Your task to perform on an android device: Open the map Image 0: 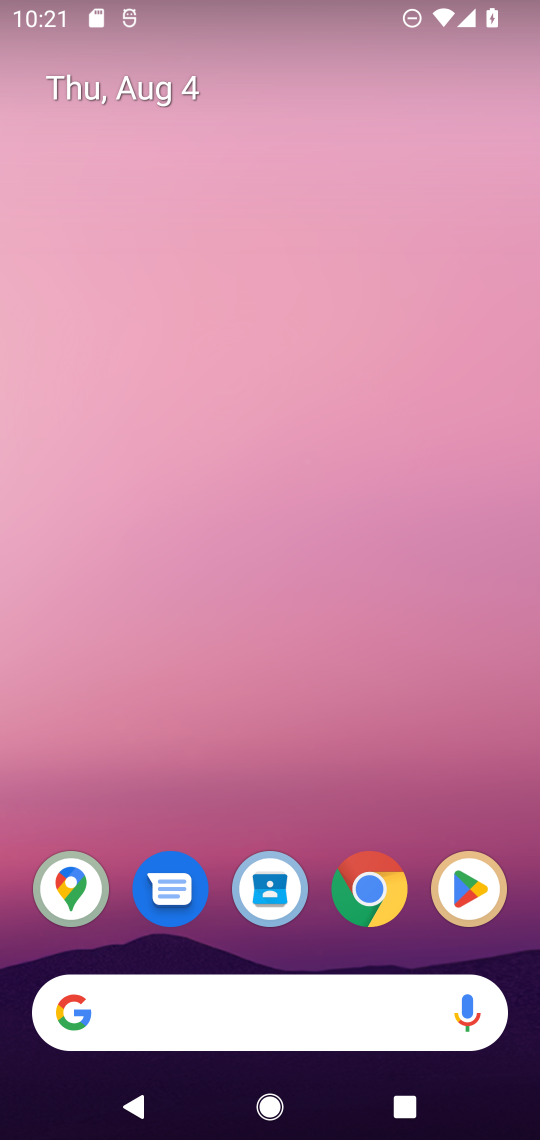
Step 0: press home button
Your task to perform on an android device: Open the map Image 1: 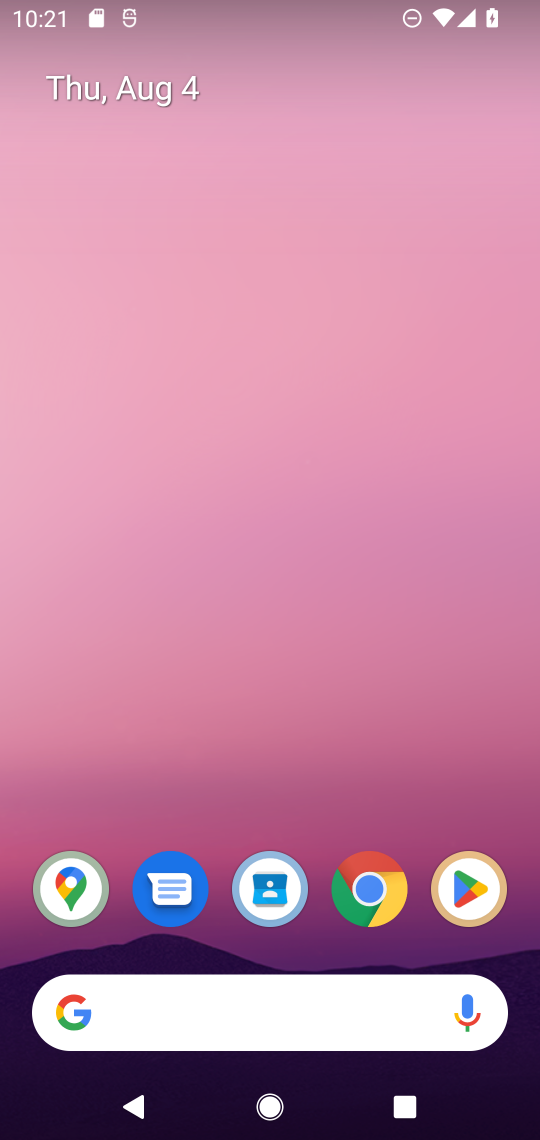
Step 1: drag from (400, 804) to (433, 279)
Your task to perform on an android device: Open the map Image 2: 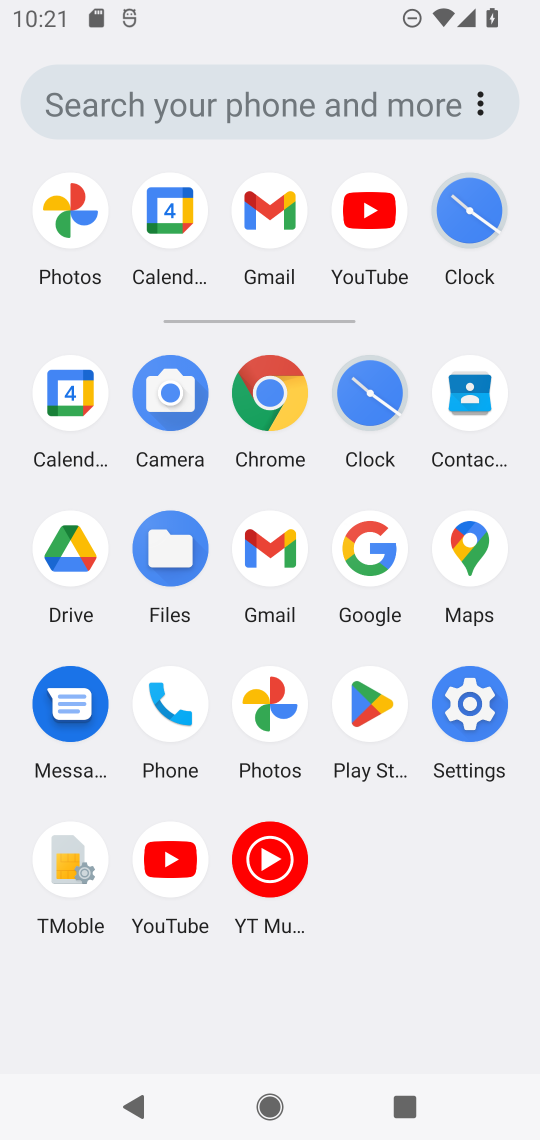
Step 2: click (474, 550)
Your task to perform on an android device: Open the map Image 3: 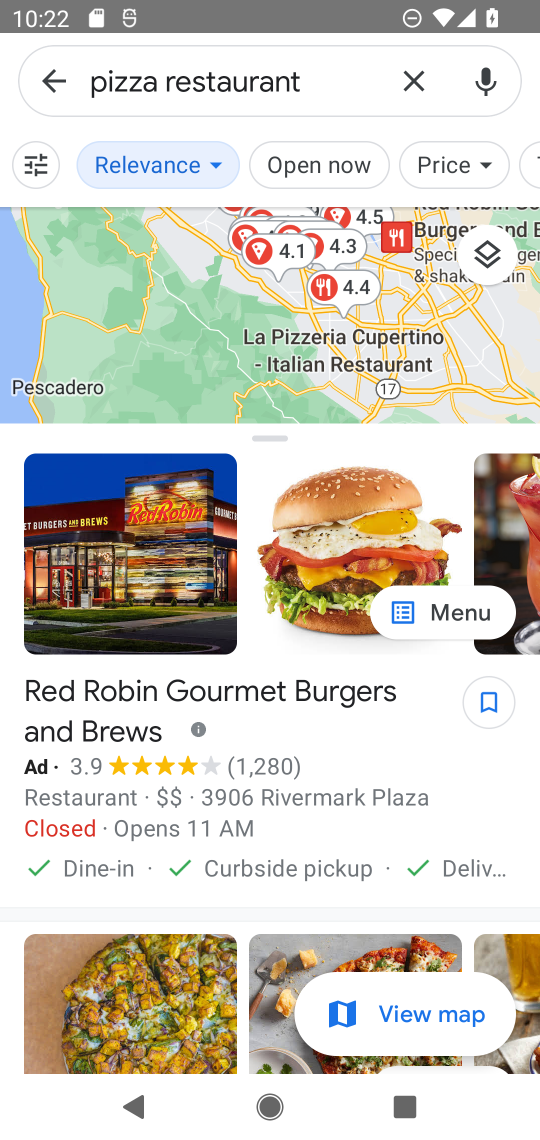
Step 3: task complete